Your task to perform on an android device: Open Youtube and go to "Your channel" Image 0: 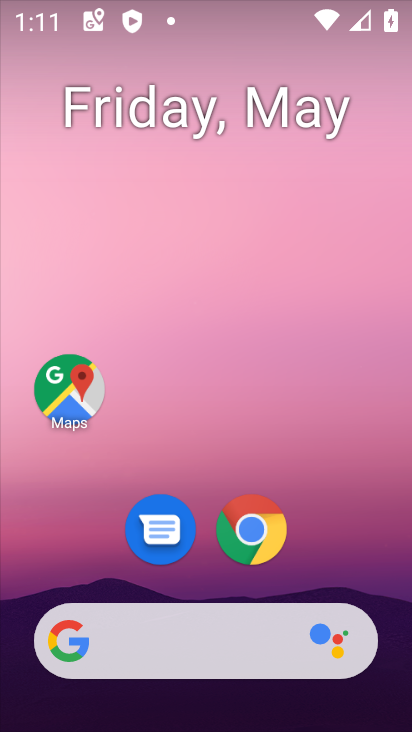
Step 0: drag from (371, 547) to (353, 253)
Your task to perform on an android device: Open Youtube and go to "Your channel" Image 1: 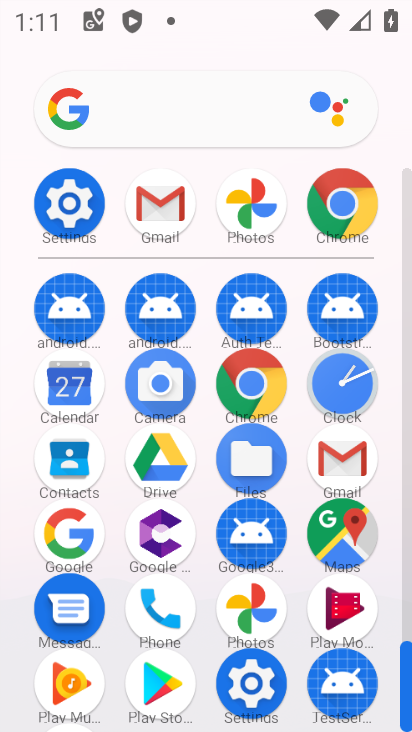
Step 1: drag from (407, 683) to (395, 724)
Your task to perform on an android device: Open Youtube and go to "Your channel" Image 2: 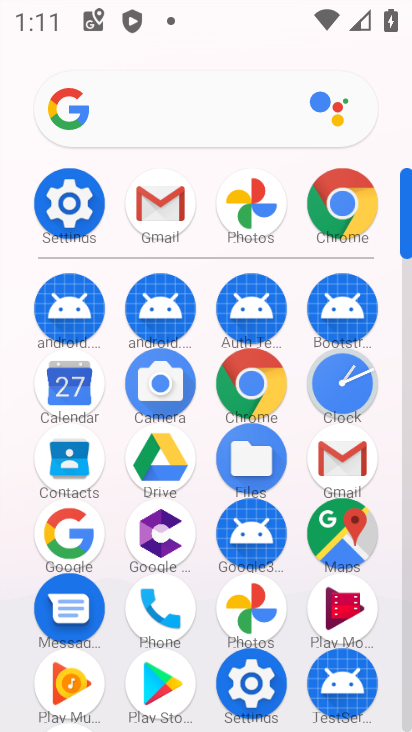
Step 2: click (411, 724)
Your task to perform on an android device: Open Youtube and go to "Your channel" Image 3: 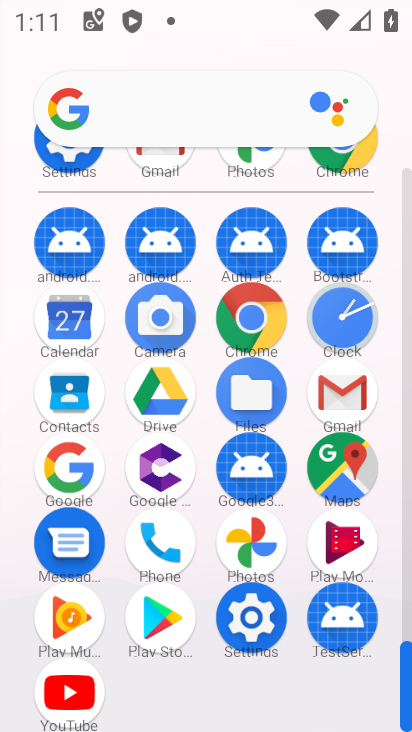
Step 3: click (71, 690)
Your task to perform on an android device: Open Youtube and go to "Your channel" Image 4: 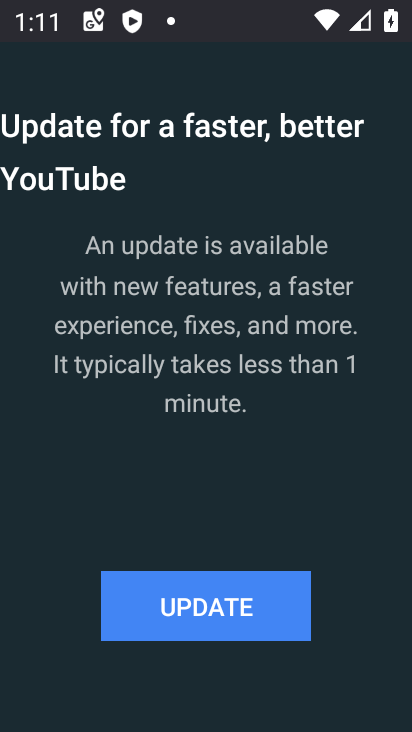
Step 4: click (244, 580)
Your task to perform on an android device: Open Youtube and go to "Your channel" Image 5: 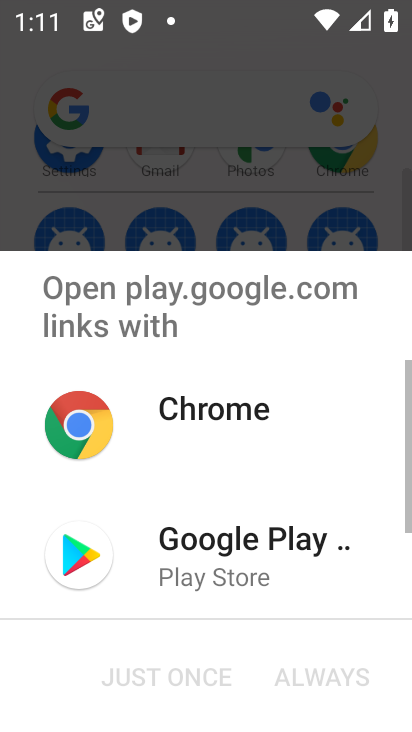
Step 5: click (244, 580)
Your task to perform on an android device: Open Youtube and go to "Your channel" Image 6: 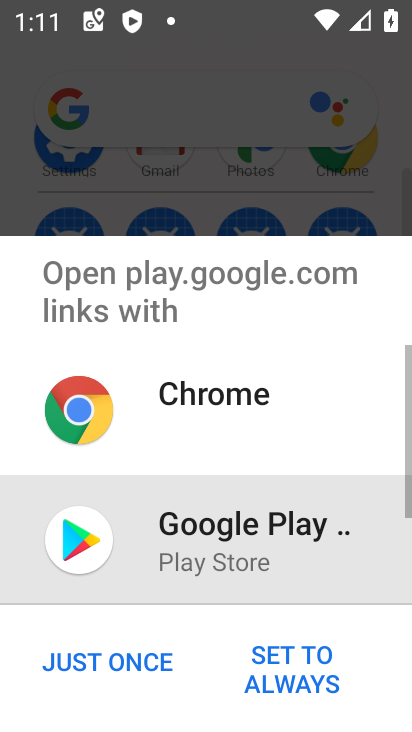
Step 6: click (95, 672)
Your task to perform on an android device: Open Youtube and go to "Your channel" Image 7: 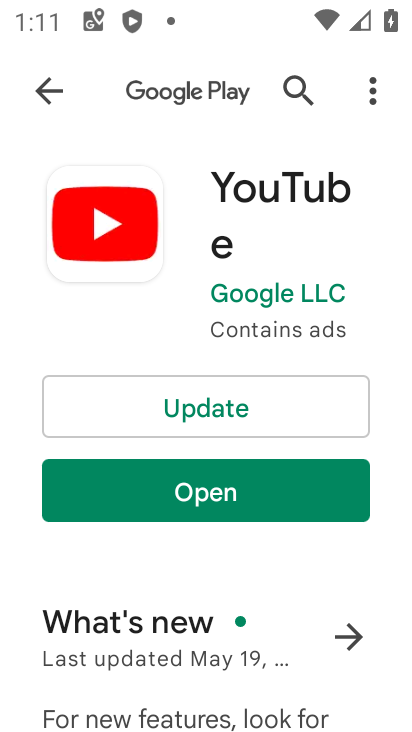
Step 7: click (229, 420)
Your task to perform on an android device: Open Youtube and go to "Your channel" Image 8: 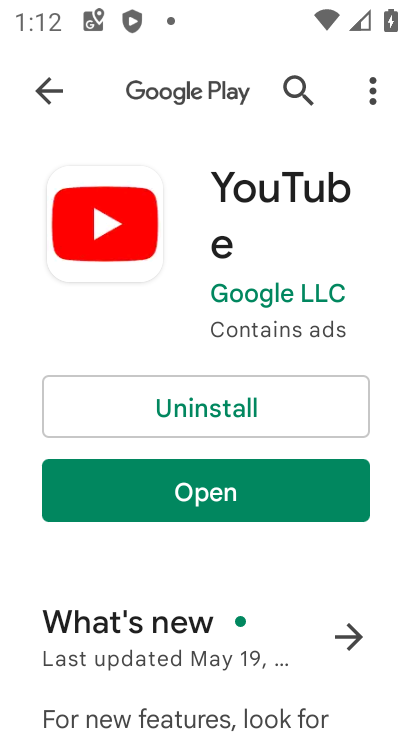
Step 8: click (250, 501)
Your task to perform on an android device: Open Youtube and go to "Your channel" Image 9: 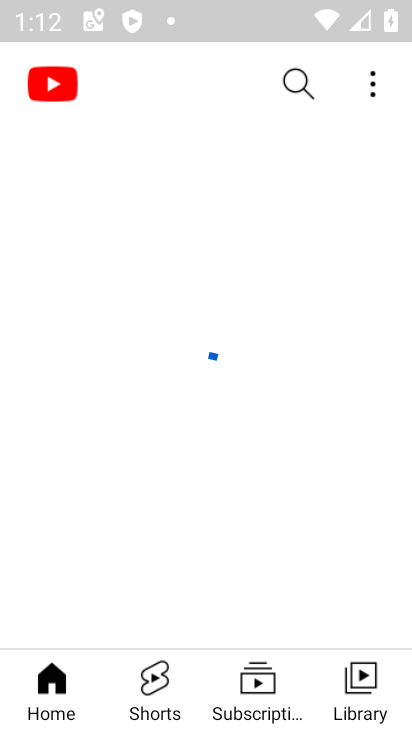
Step 9: click (382, 688)
Your task to perform on an android device: Open Youtube and go to "Your channel" Image 10: 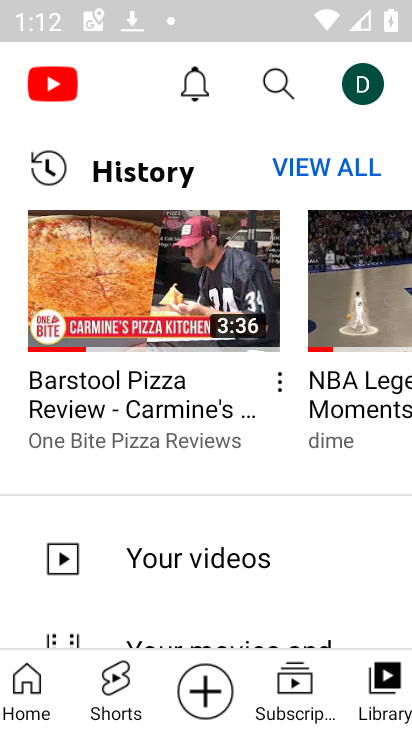
Step 10: click (364, 107)
Your task to perform on an android device: Open Youtube and go to "Your channel" Image 11: 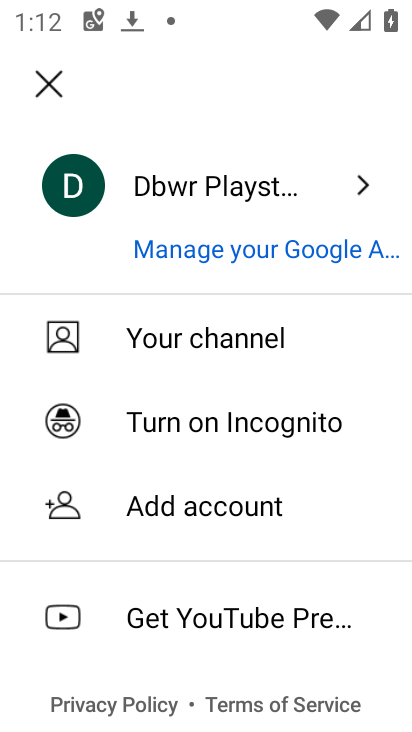
Step 11: click (284, 323)
Your task to perform on an android device: Open Youtube and go to "Your channel" Image 12: 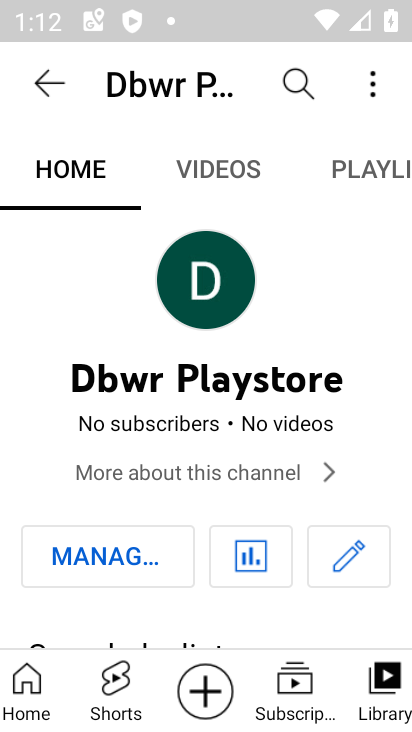
Step 12: task complete